Your task to perform on an android device: Go to notification settings Image 0: 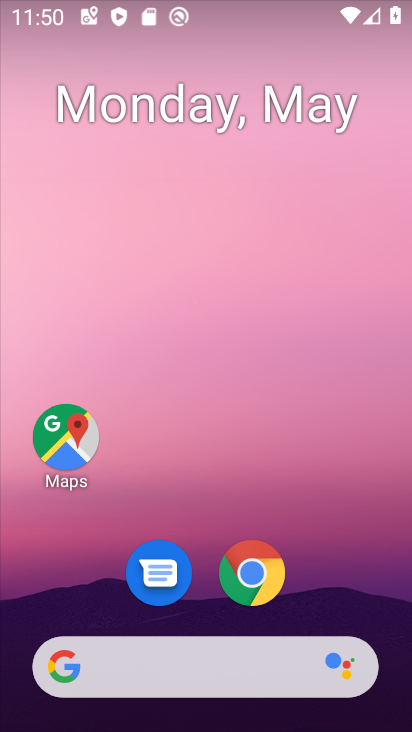
Step 0: drag from (231, 640) to (248, 106)
Your task to perform on an android device: Go to notification settings Image 1: 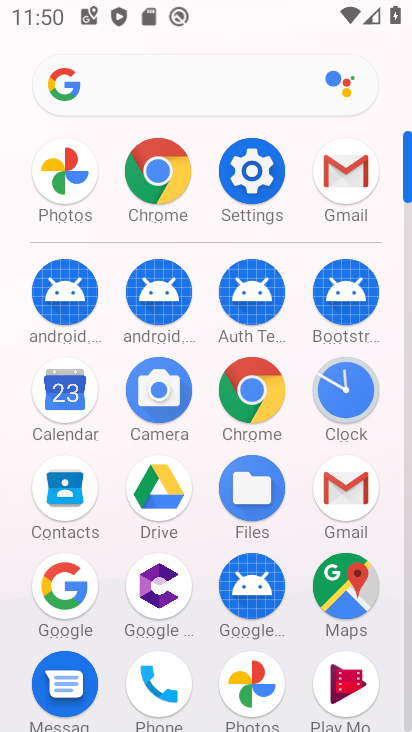
Step 1: click (253, 181)
Your task to perform on an android device: Go to notification settings Image 2: 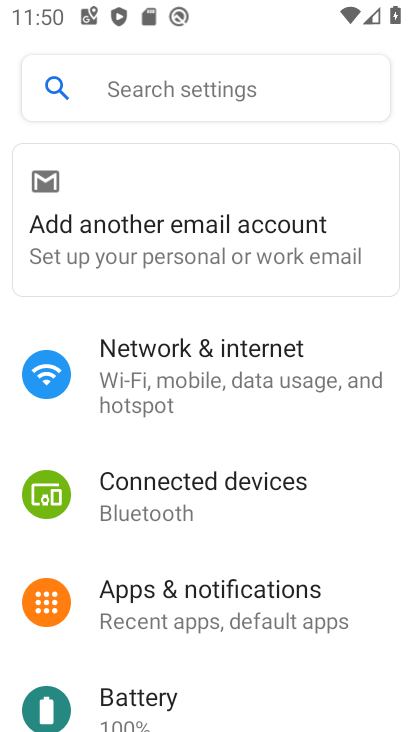
Step 2: click (221, 599)
Your task to perform on an android device: Go to notification settings Image 3: 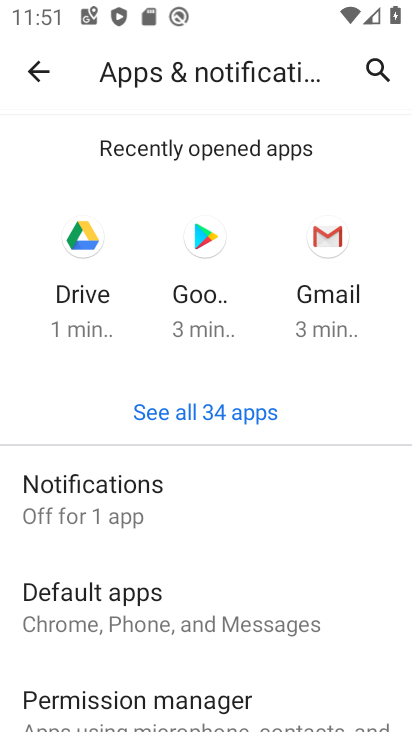
Step 3: click (202, 500)
Your task to perform on an android device: Go to notification settings Image 4: 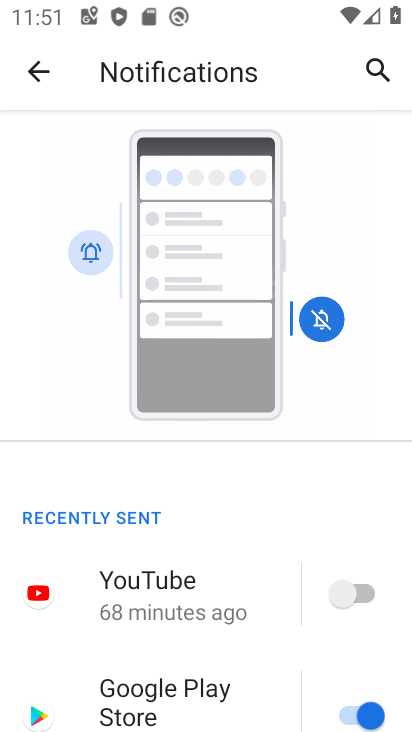
Step 4: task complete